Your task to perform on an android device: allow cookies in the chrome app Image 0: 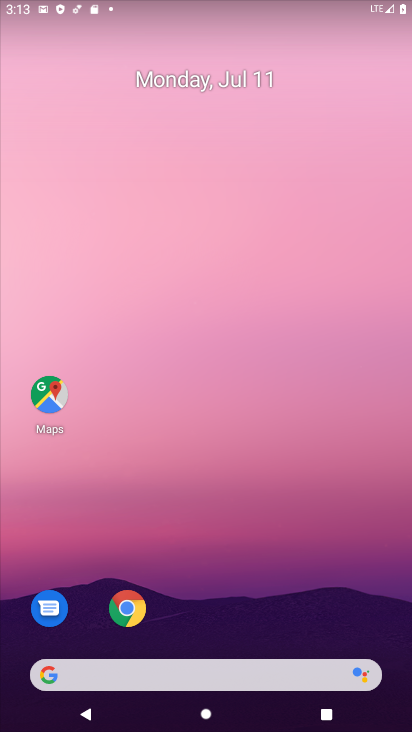
Step 0: click (131, 609)
Your task to perform on an android device: allow cookies in the chrome app Image 1: 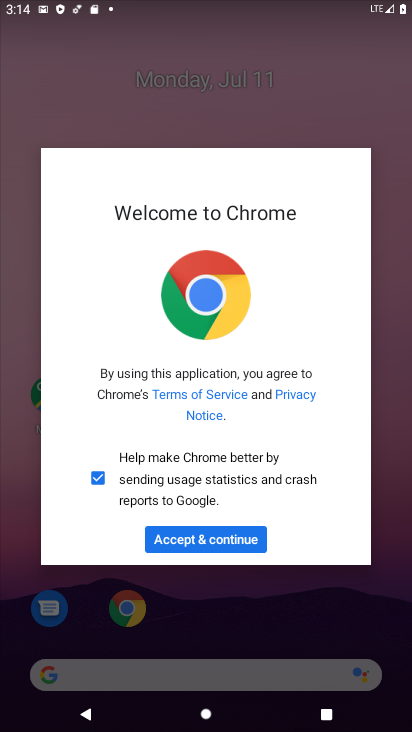
Step 1: click (206, 534)
Your task to perform on an android device: allow cookies in the chrome app Image 2: 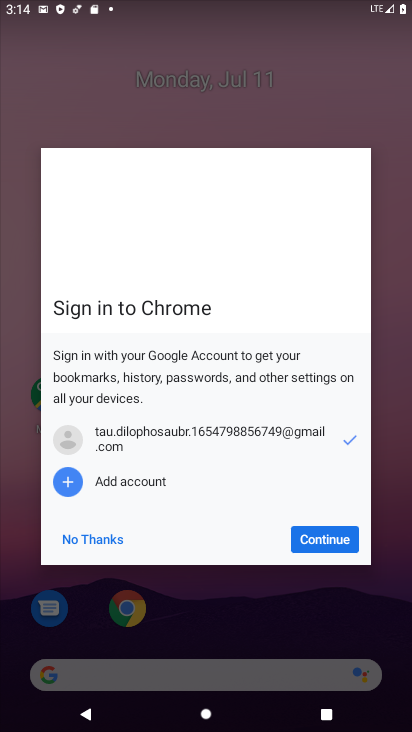
Step 2: click (308, 540)
Your task to perform on an android device: allow cookies in the chrome app Image 3: 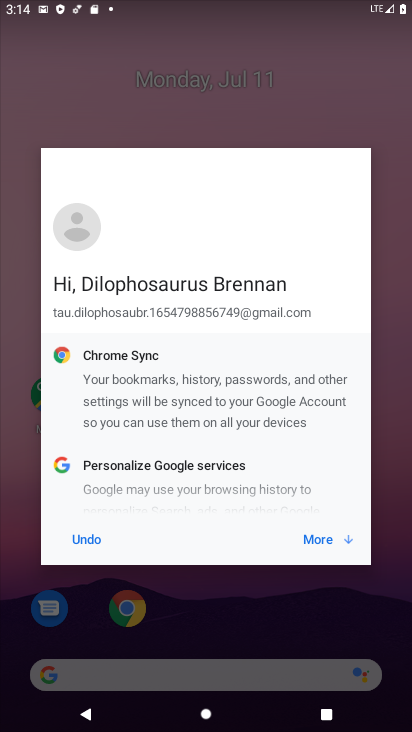
Step 3: click (308, 540)
Your task to perform on an android device: allow cookies in the chrome app Image 4: 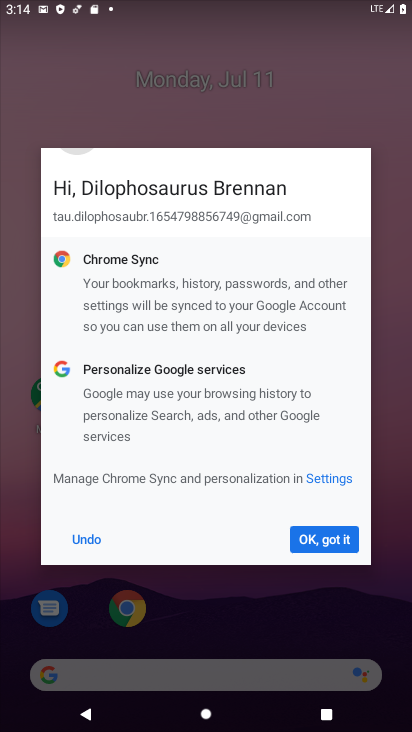
Step 4: click (308, 540)
Your task to perform on an android device: allow cookies in the chrome app Image 5: 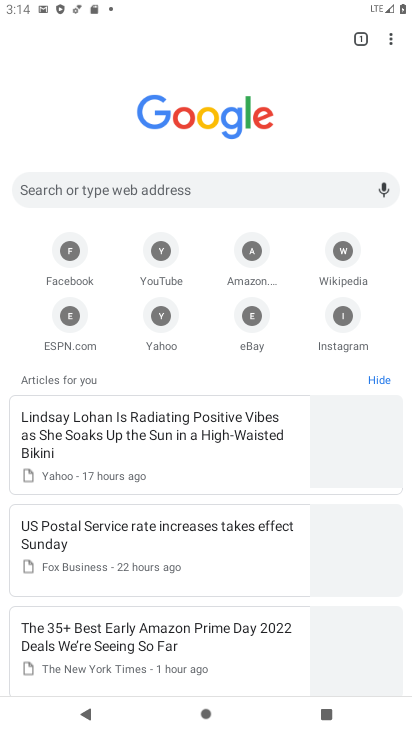
Step 5: click (397, 37)
Your task to perform on an android device: allow cookies in the chrome app Image 6: 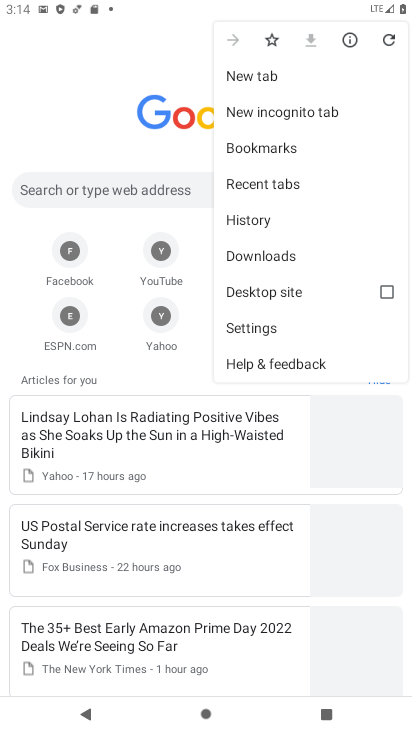
Step 6: click (245, 329)
Your task to perform on an android device: allow cookies in the chrome app Image 7: 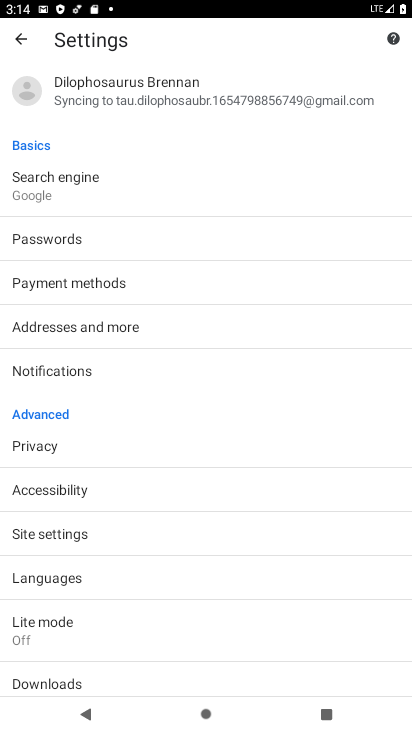
Step 7: click (48, 525)
Your task to perform on an android device: allow cookies in the chrome app Image 8: 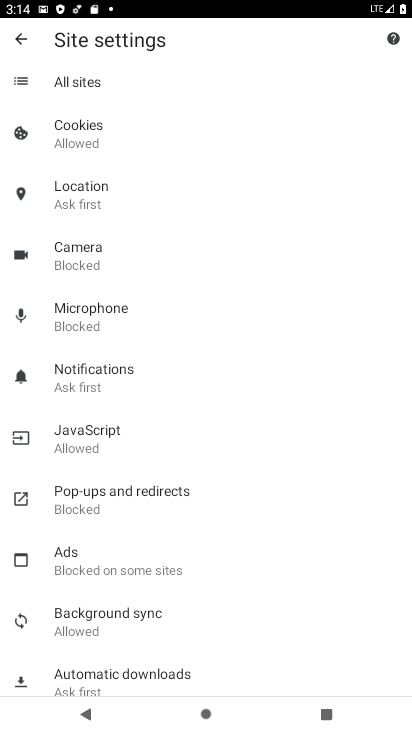
Step 8: click (136, 134)
Your task to perform on an android device: allow cookies in the chrome app Image 9: 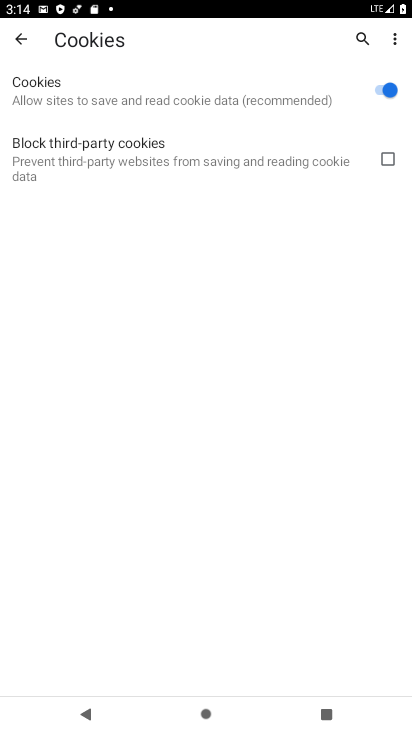
Step 9: task complete